Your task to perform on an android device: Open calendar and show me the second week of next month Image 0: 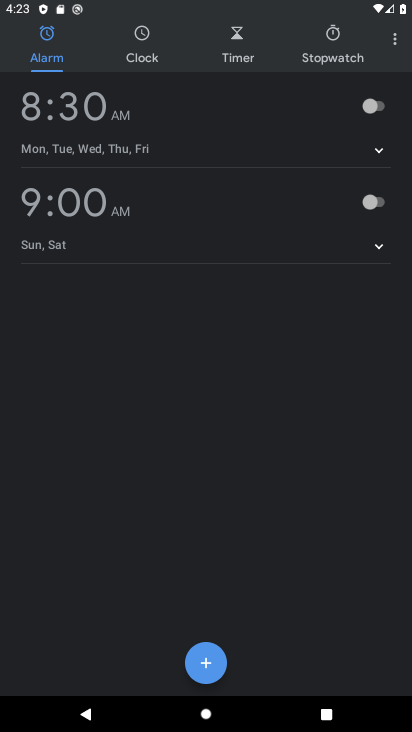
Step 0: press home button
Your task to perform on an android device: Open calendar and show me the second week of next month Image 1: 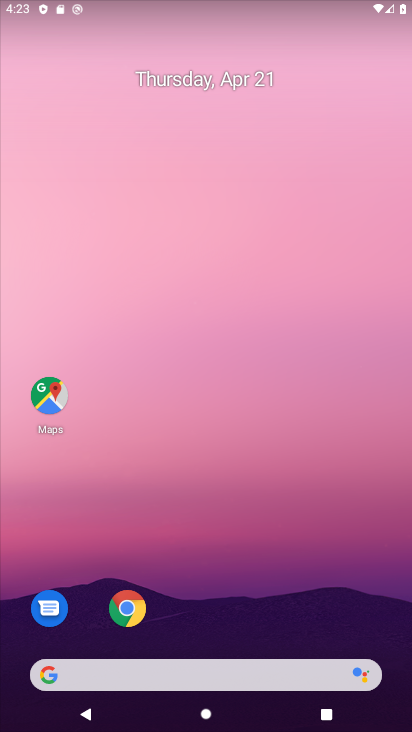
Step 1: drag from (242, 585) to (111, 124)
Your task to perform on an android device: Open calendar and show me the second week of next month Image 2: 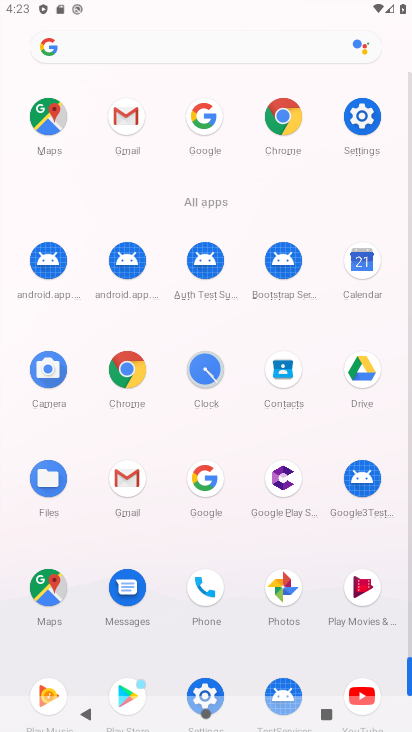
Step 2: click (356, 277)
Your task to perform on an android device: Open calendar and show me the second week of next month Image 3: 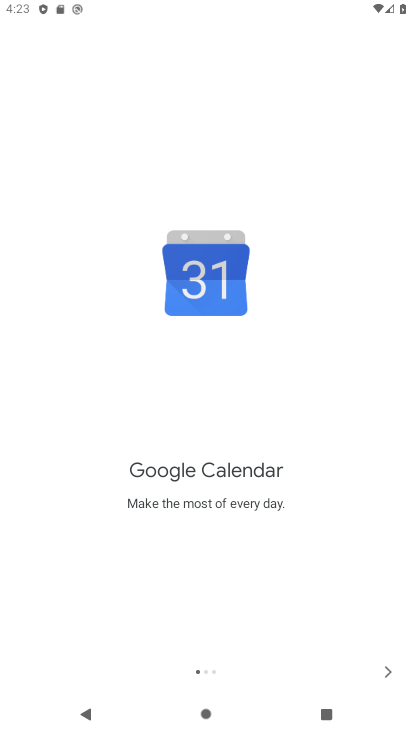
Step 3: click (392, 674)
Your task to perform on an android device: Open calendar and show me the second week of next month Image 4: 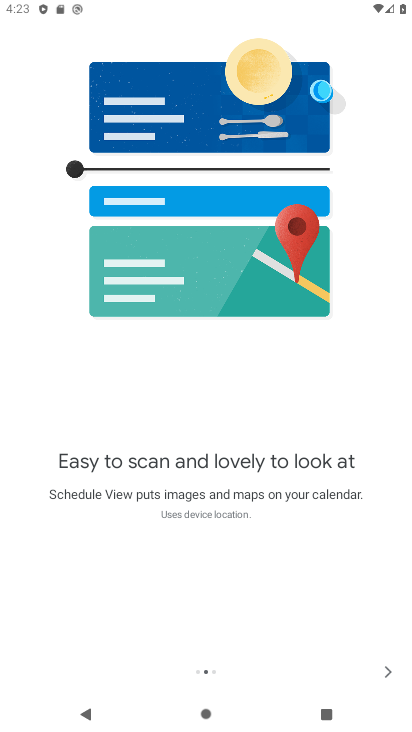
Step 4: click (392, 674)
Your task to perform on an android device: Open calendar and show me the second week of next month Image 5: 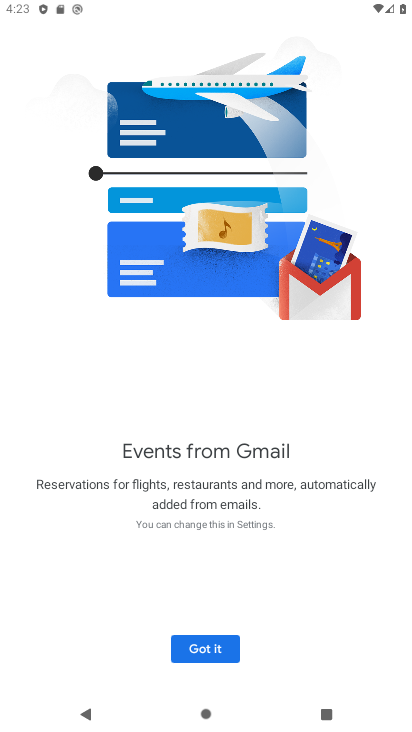
Step 5: click (200, 647)
Your task to perform on an android device: Open calendar and show me the second week of next month Image 6: 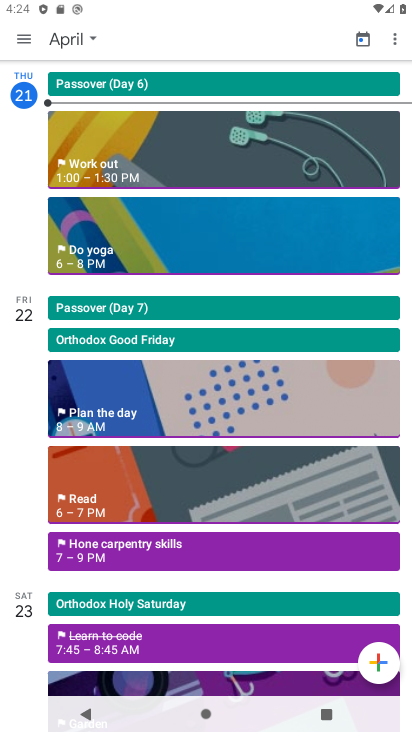
Step 6: click (24, 46)
Your task to perform on an android device: Open calendar and show me the second week of next month Image 7: 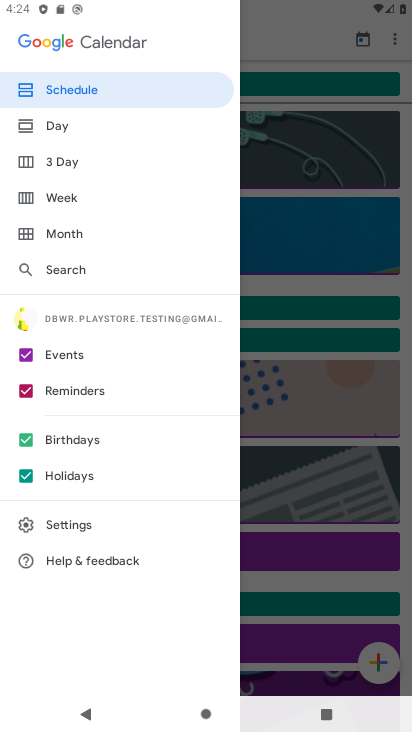
Step 7: click (65, 202)
Your task to perform on an android device: Open calendar and show me the second week of next month Image 8: 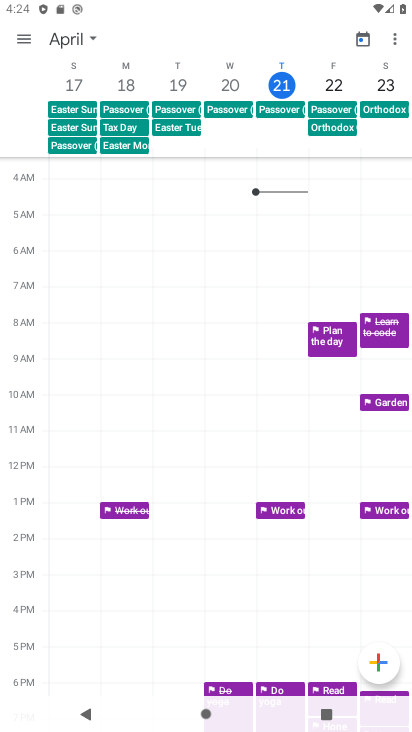
Step 8: click (67, 43)
Your task to perform on an android device: Open calendar and show me the second week of next month Image 9: 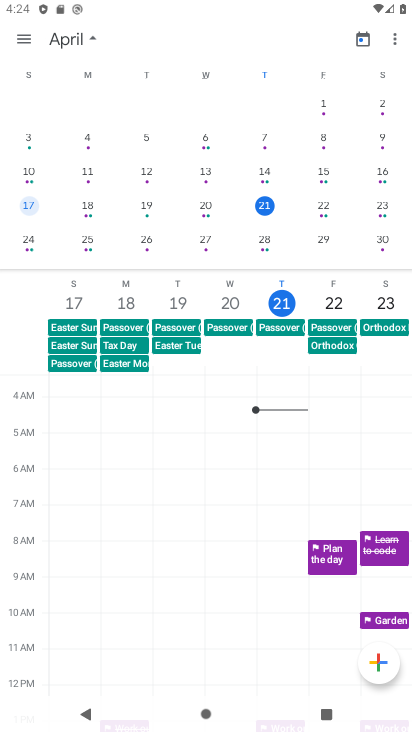
Step 9: drag from (318, 170) to (21, 206)
Your task to perform on an android device: Open calendar and show me the second week of next month Image 10: 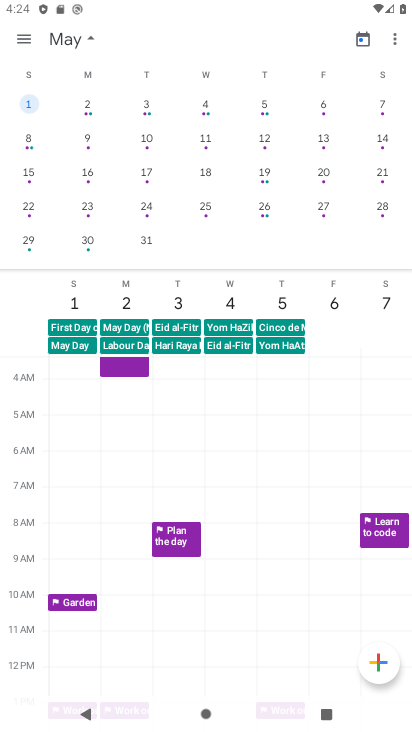
Step 10: click (30, 142)
Your task to perform on an android device: Open calendar and show me the second week of next month Image 11: 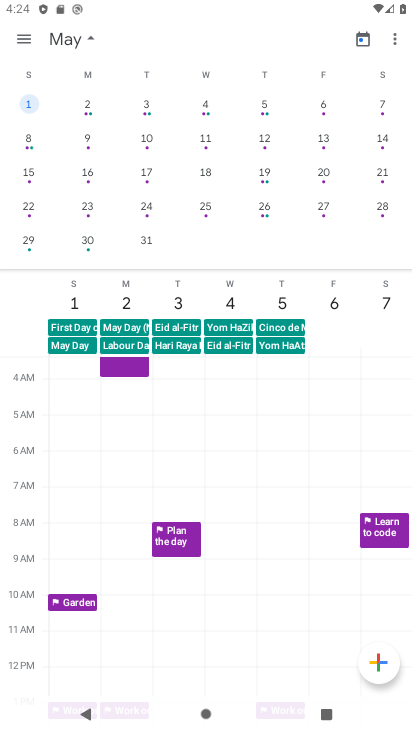
Step 11: click (34, 150)
Your task to perform on an android device: Open calendar and show me the second week of next month Image 12: 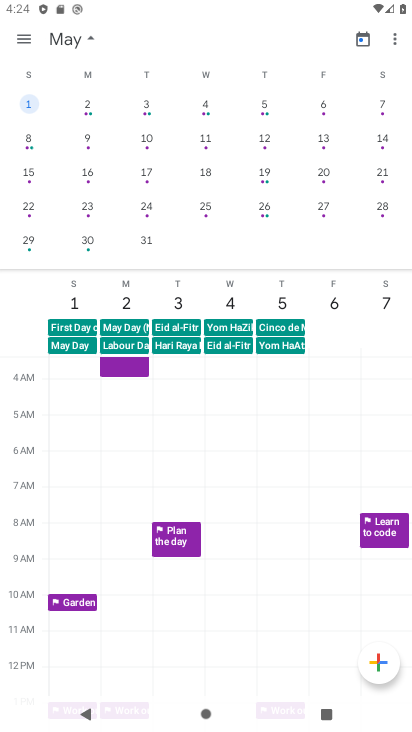
Step 12: click (29, 142)
Your task to perform on an android device: Open calendar and show me the second week of next month Image 13: 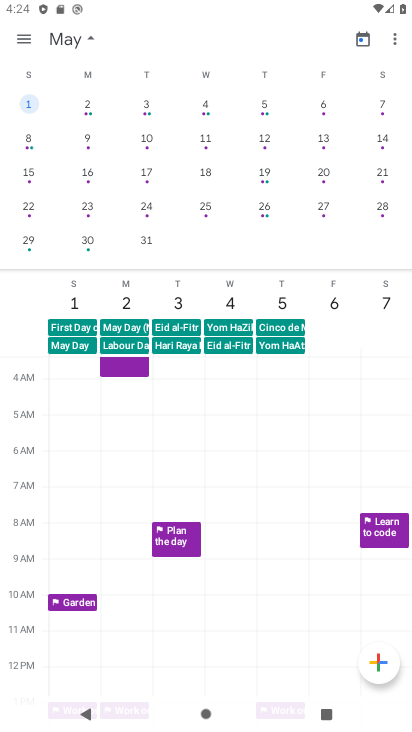
Step 13: click (29, 142)
Your task to perform on an android device: Open calendar and show me the second week of next month Image 14: 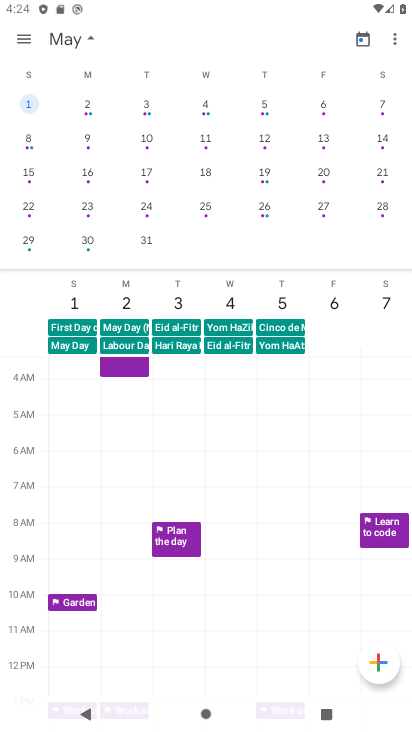
Step 14: click (22, 146)
Your task to perform on an android device: Open calendar and show me the second week of next month Image 15: 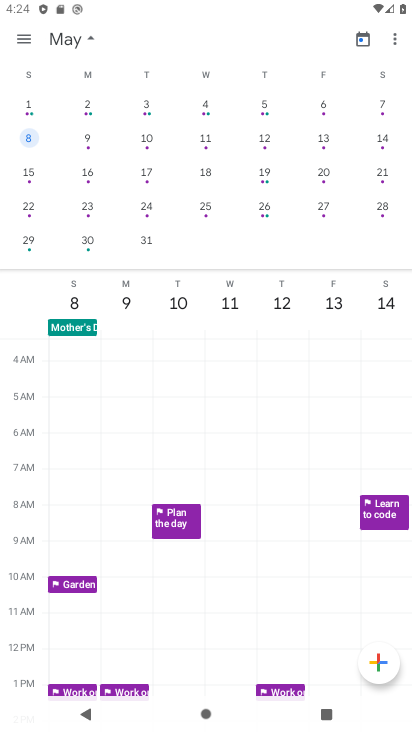
Step 15: task complete